Your task to perform on an android device: Check the weather Image 0: 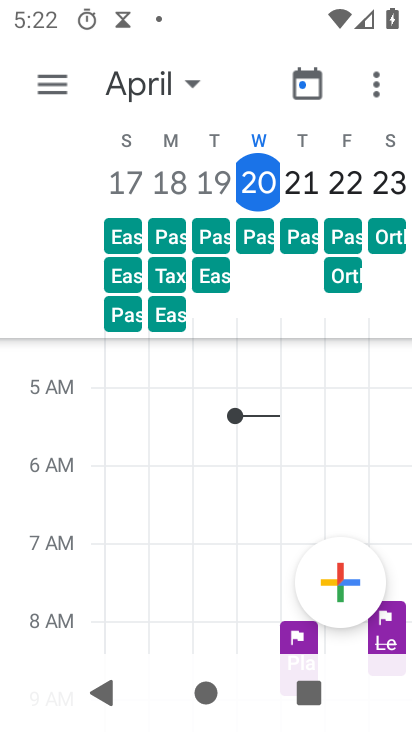
Step 0: press home button
Your task to perform on an android device: Check the weather Image 1: 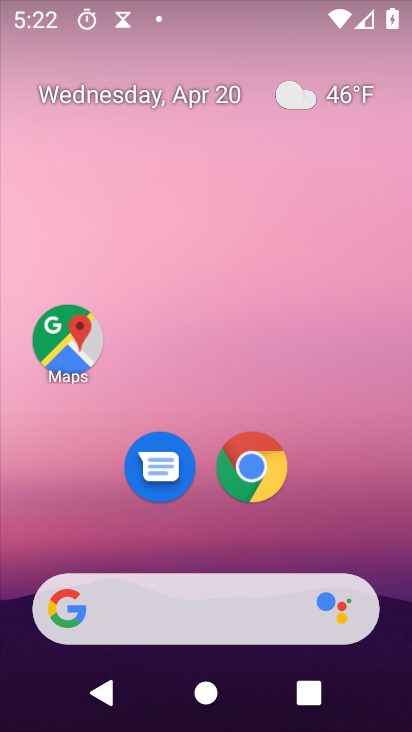
Step 1: click (329, 90)
Your task to perform on an android device: Check the weather Image 2: 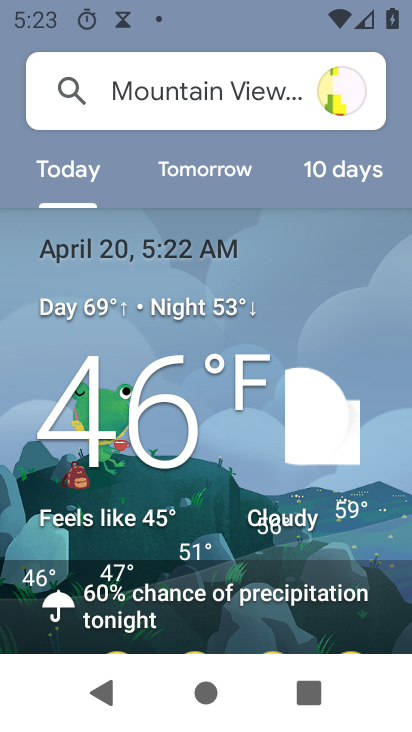
Step 2: task complete